Your task to perform on an android device: Open display settings Image 0: 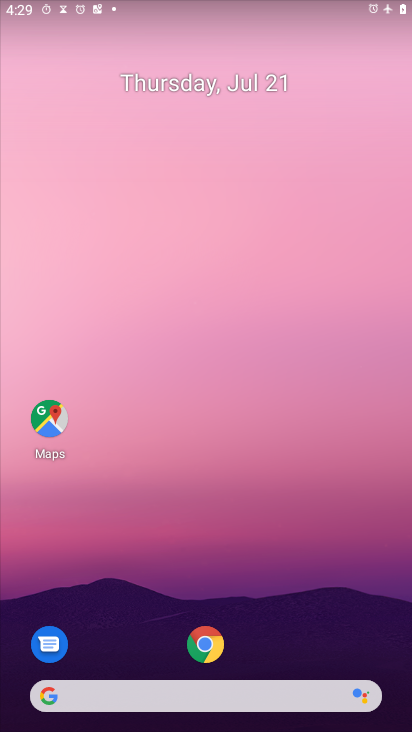
Step 0: press home button
Your task to perform on an android device: Open display settings Image 1: 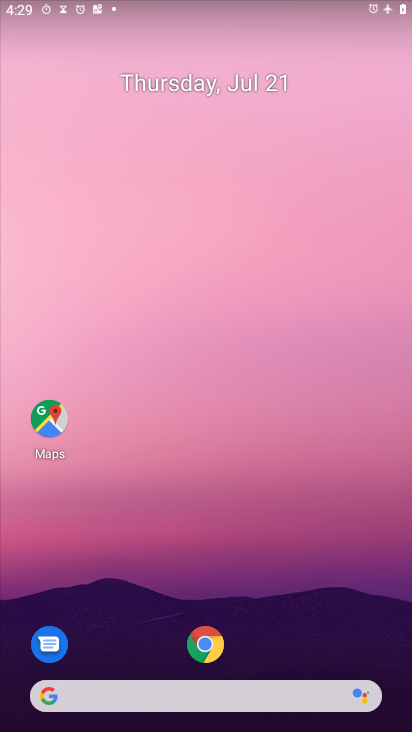
Step 1: drag from (268, 654) to (322, 38)
Your task to perform on an android device: Open display settings Image 2: 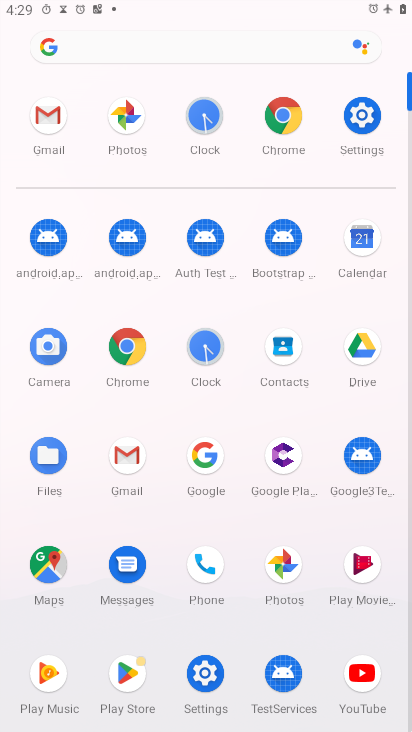
Step 2: click (361, 122)
Your task to perform on an android device: Open display settings Image 3: 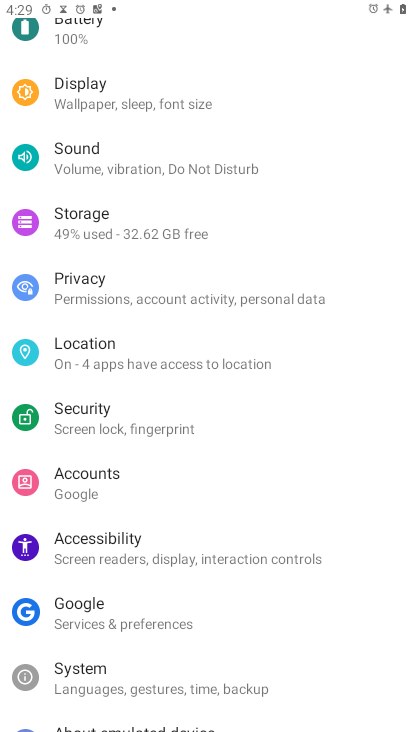
Step 3: click (86, 94)
Your task to perform on an android device: Open display settings Image 4: 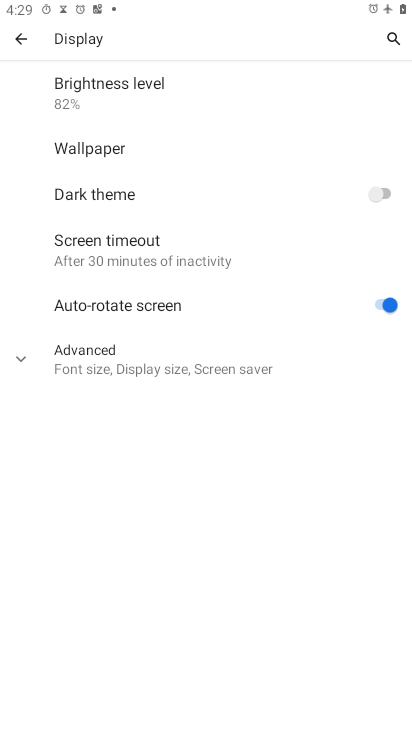
Step 4: task complete